Your task to perform on an android device: Go to network settings Image 0: 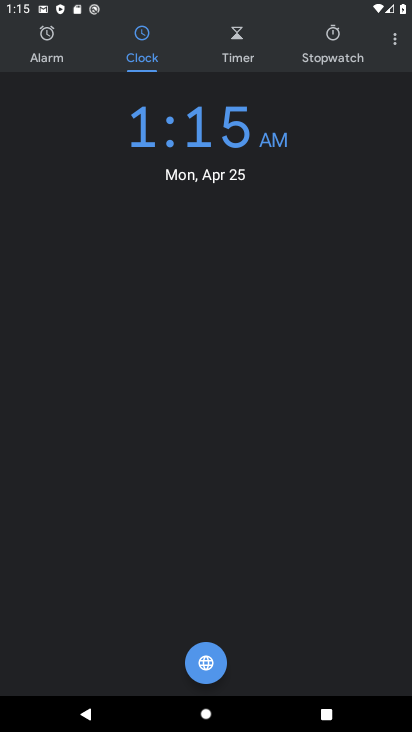
Step 0: press home button
Your task to perform on an android device: Go to network settings Image 1: 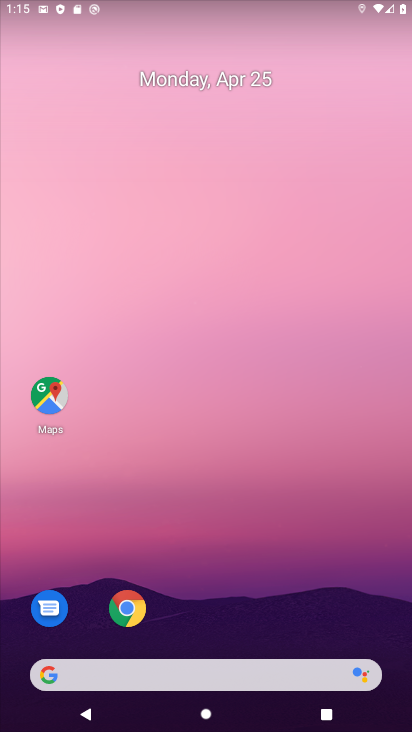
Step 1: drag from (256, 650) to (235, 3)
Your task to perform on an android device: Go to network settings Image 2: 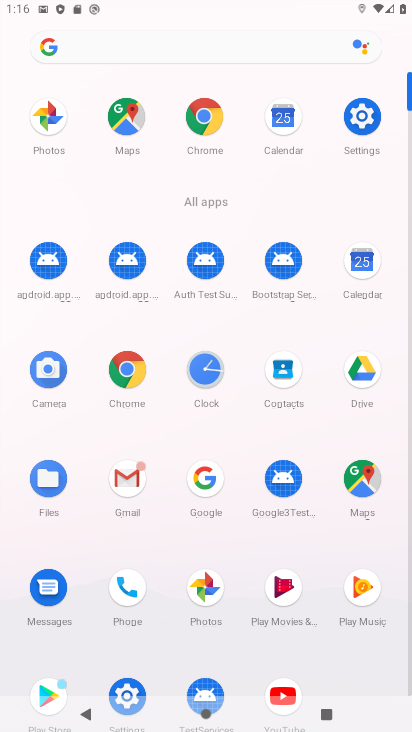
Step 2: click (353, 123)
Your task to perform on an android device: Go to network settings Image 3: 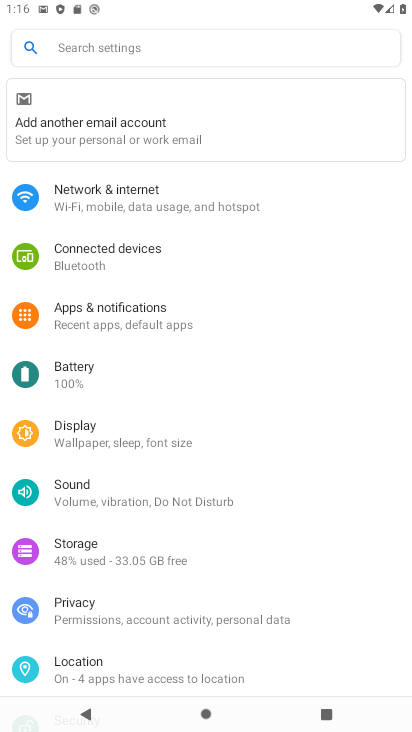
Step 3: click (165, 205)
Your task to perform on an android device: Go to network settings Image 4: 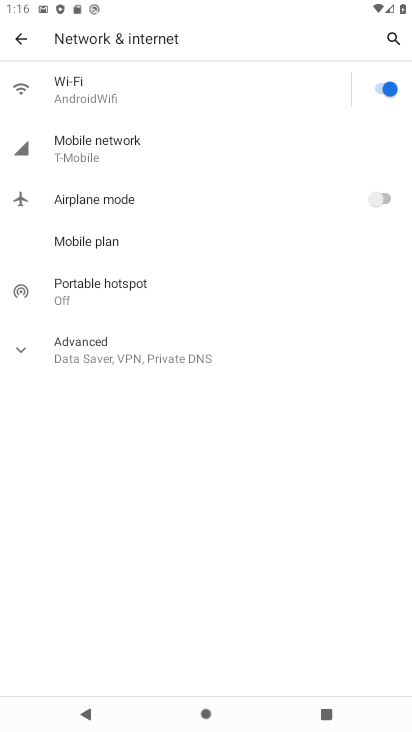
Step 4: task complete